Your task to perform on an android device: Check the settings for the Instagram app Image 0: 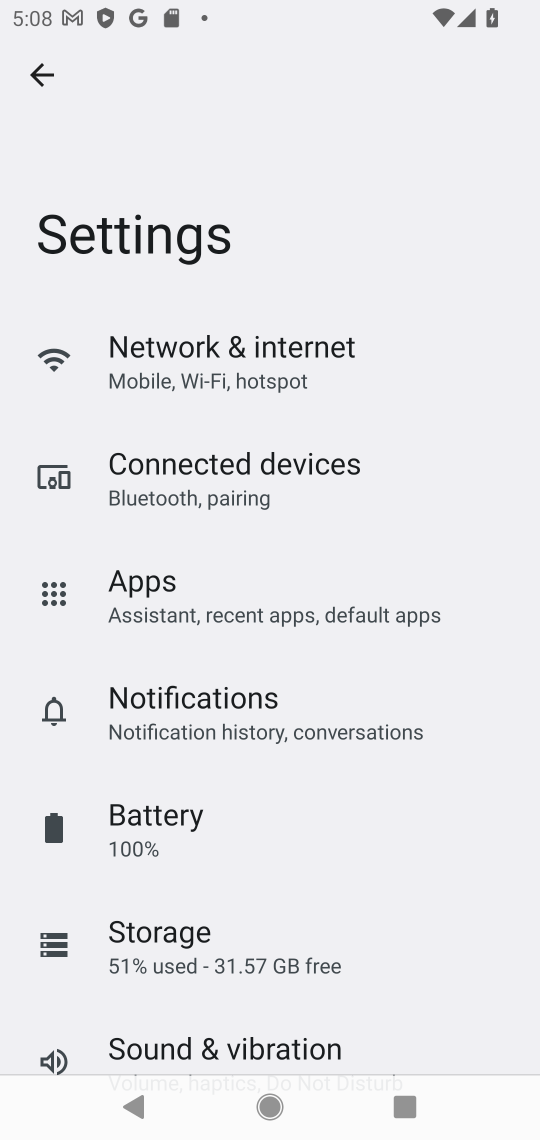
Step 0: press home button
Your task to perform on an android device: Check the settings for the Instagram app Image 1: 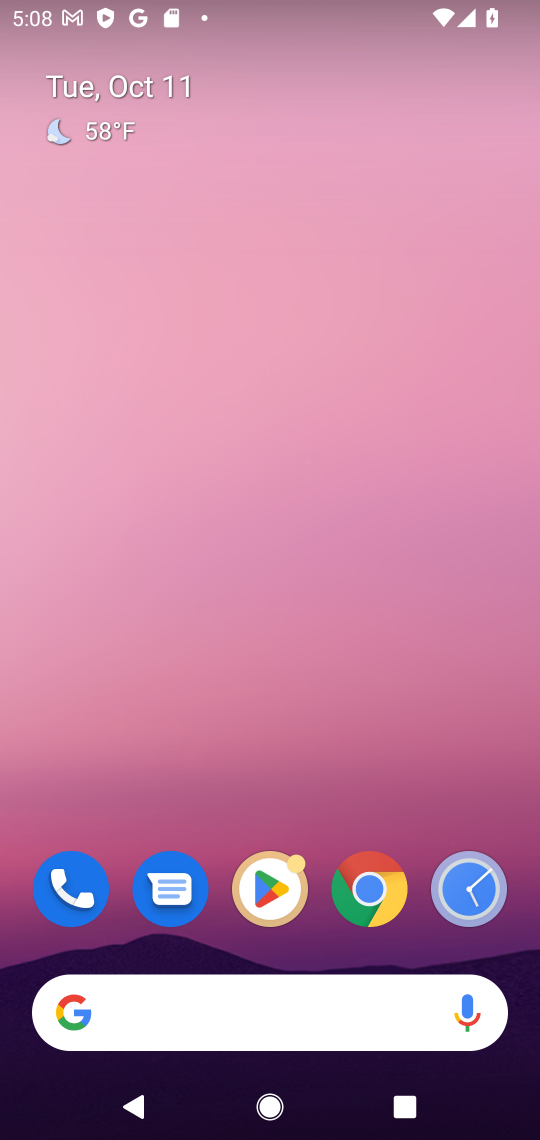
Step 1: drag from (316, 864) to (386, 380)
Your task to perform on an android device: Check the settings for the Instagram app Image 2: 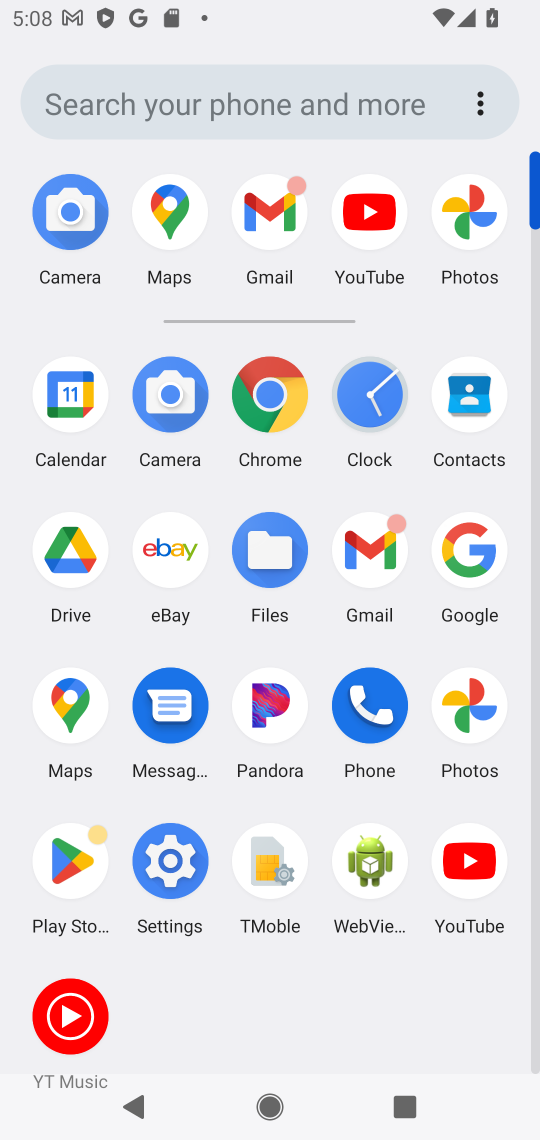
Step 2: click (60, 851)
Your task to perform on an android device: Check the settings for the Instagram app Image 3: 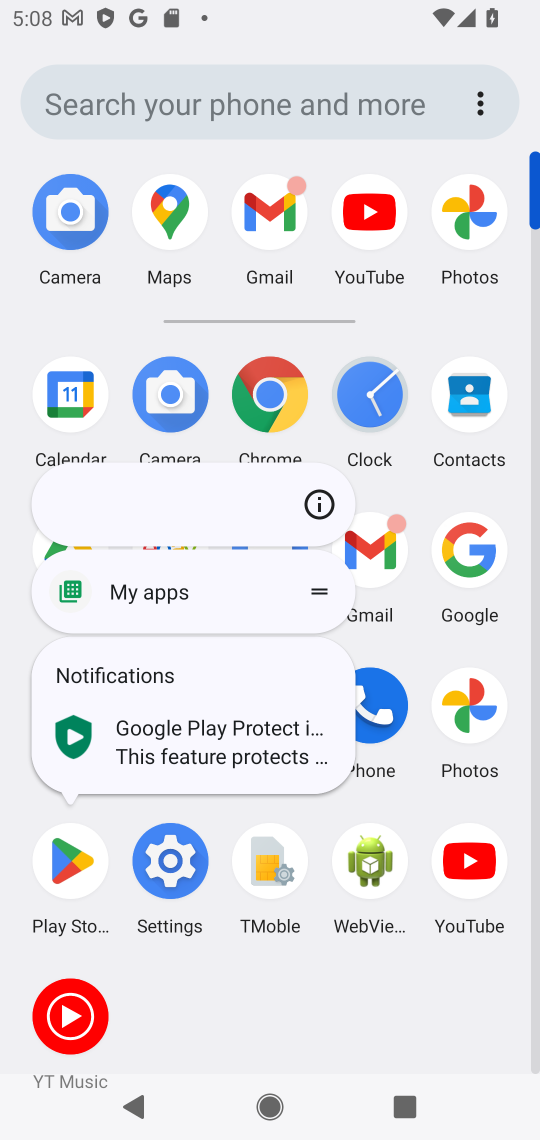
Step 3: click (67, 851)
Your task to perform on an android device: Check the settings for the Instagram app Image 4: 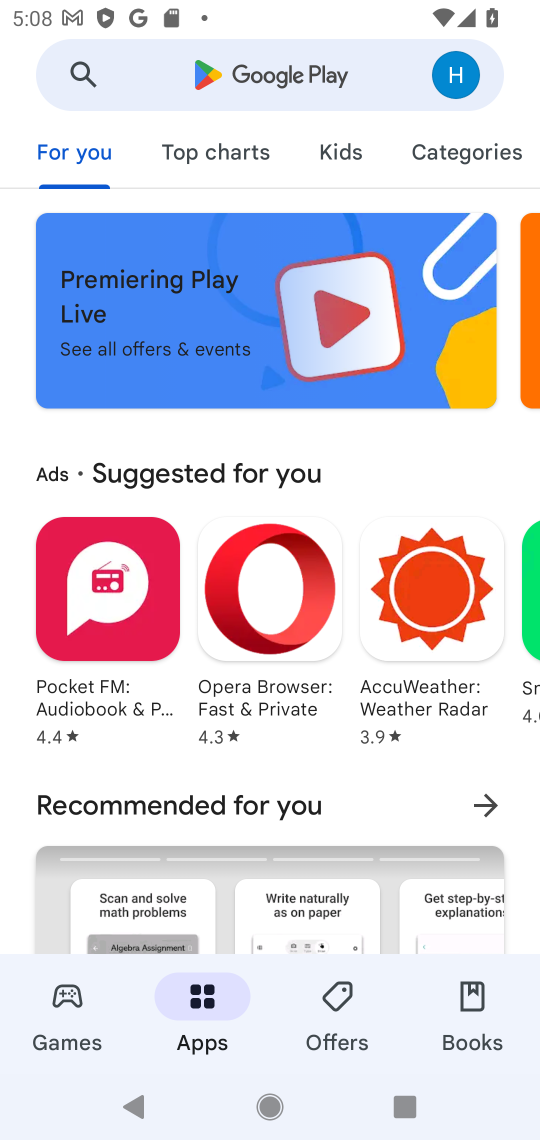
Step 4: click (329, 51)
Your task to perform on an android device: Check the settings for the Instagram app Image 5: 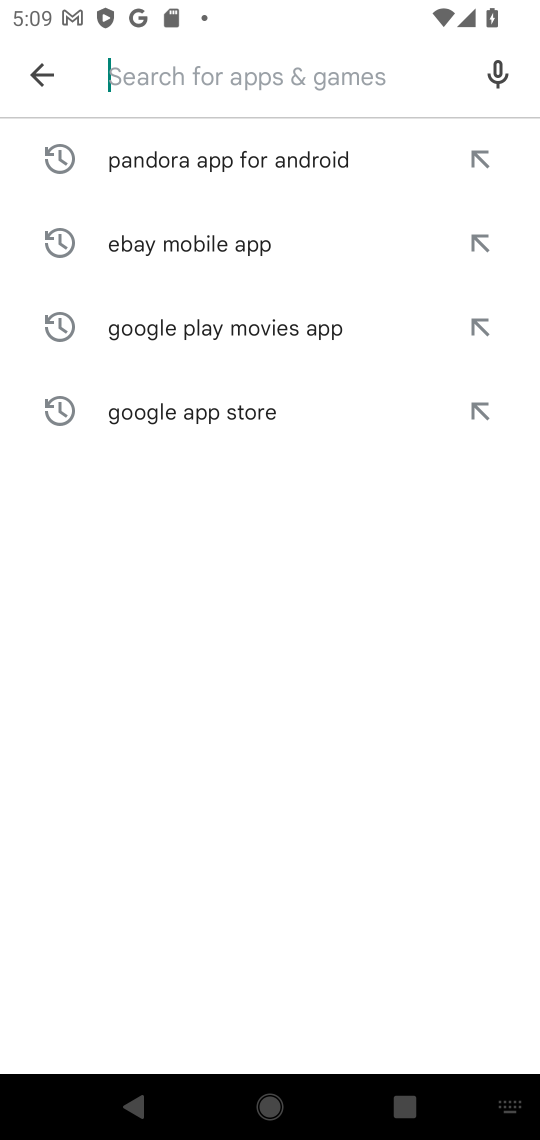
Step 5: click (331, 59)
Your task to perform on an android device: Check the settings for the Instagram app Image 6: 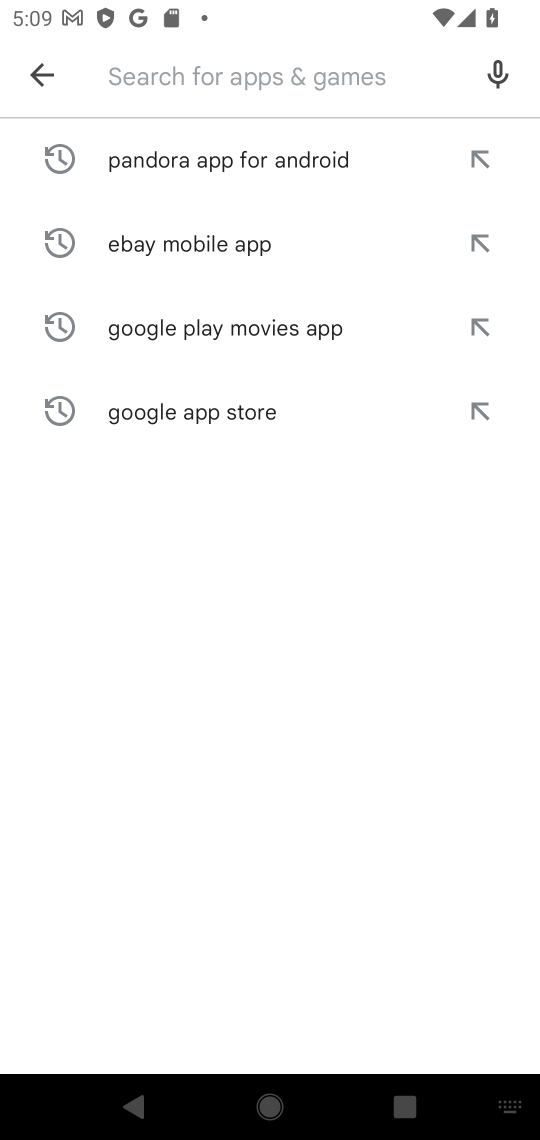
Step 6: type "instagram "
Your task to perform on an android device: Check the settings for the Instagram app Image 7: 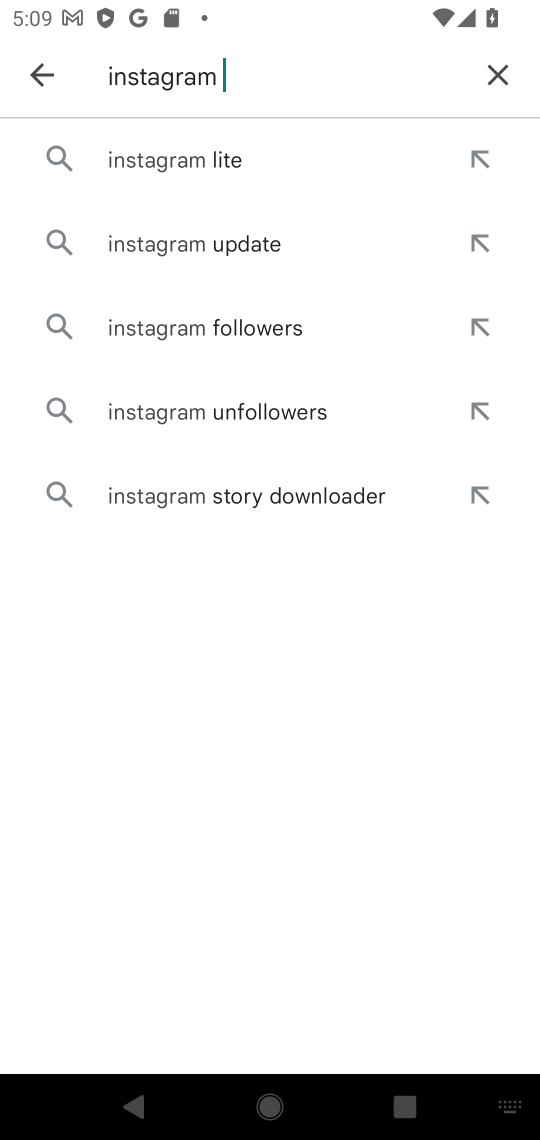
Step 7: click (211, 186)
Your task to perform on an android device: Check the settings for the Instagram app Image 8: 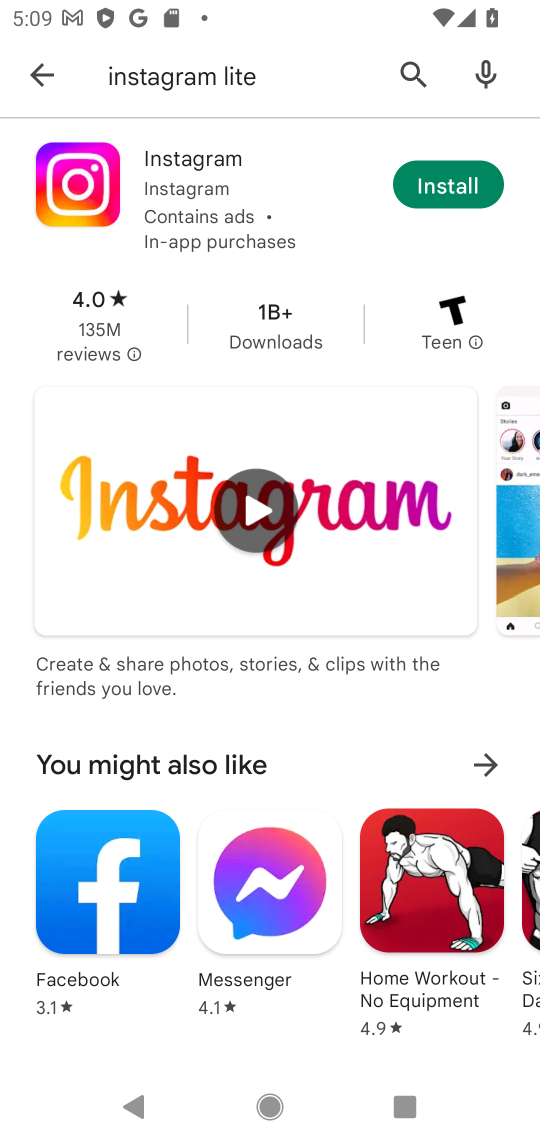
Step 8: click (475, 192)
Your task to perform on an android device: Check the settings for the Instagram app Image 9: 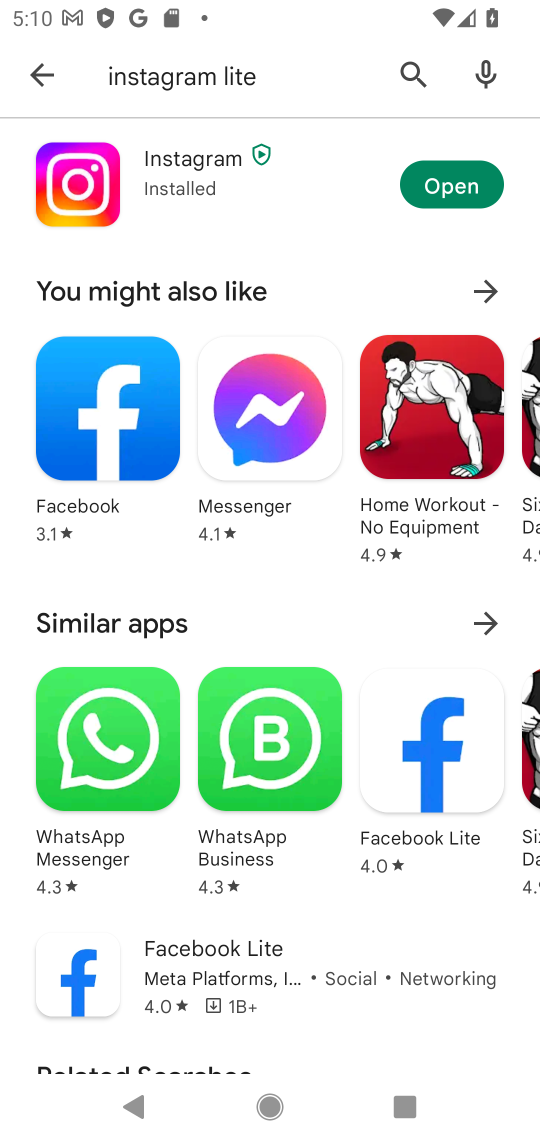
Step 9: click (457, 171)
Your task to perform on an android device: Check the settings for the Instagram app Image 10: 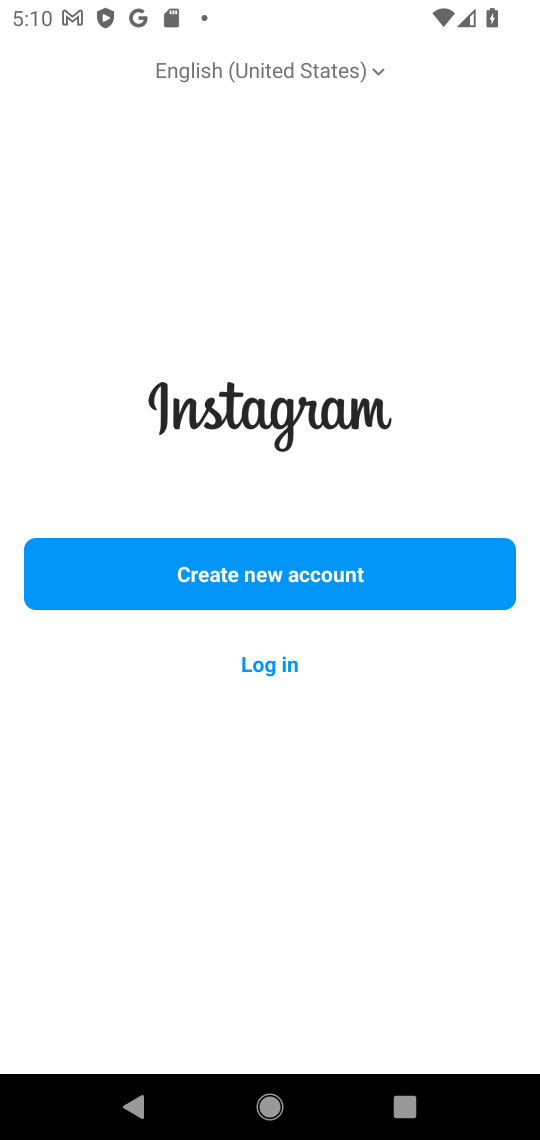
Step 10: click (282, 566)
Your task to perform on an android device: Check the settings for the Instagram app Image 11: 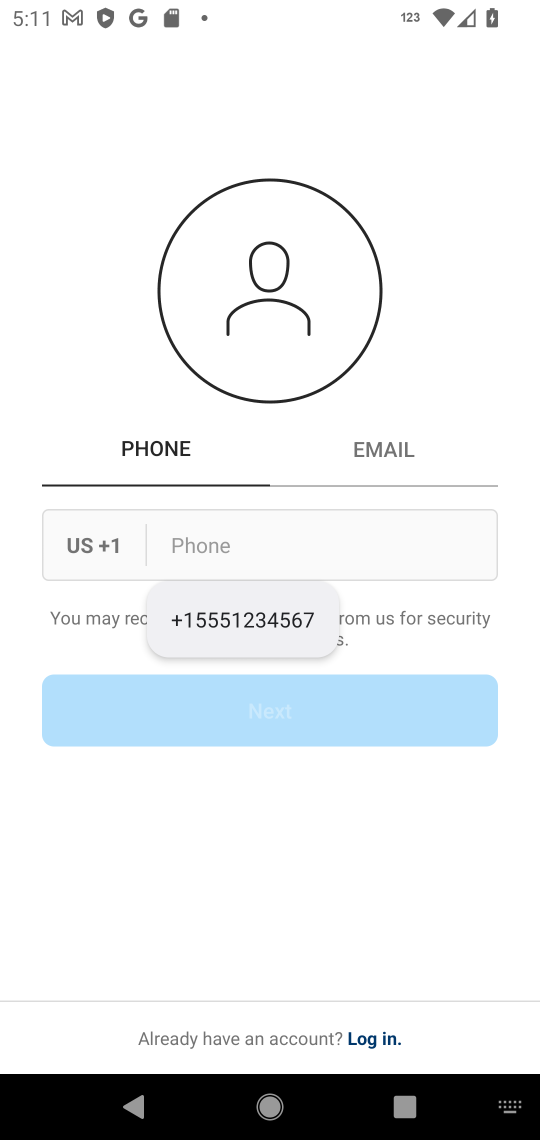
Step 11: task complete